Your task to perform on an android device: turn off wifi Image 0: 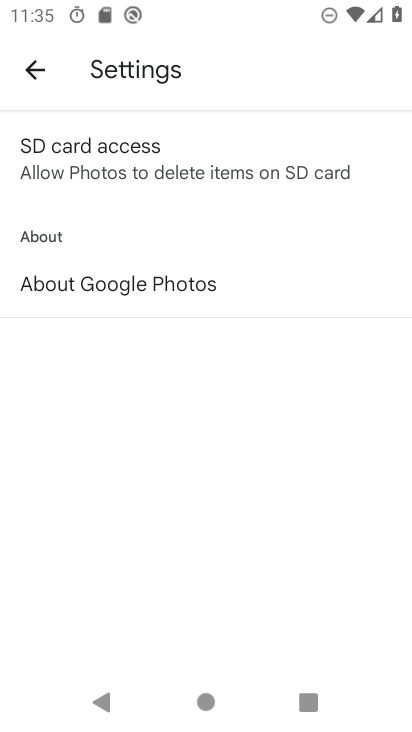
Step 0: press home button
Your task to perform on an android device: turn off wifi Image 1: 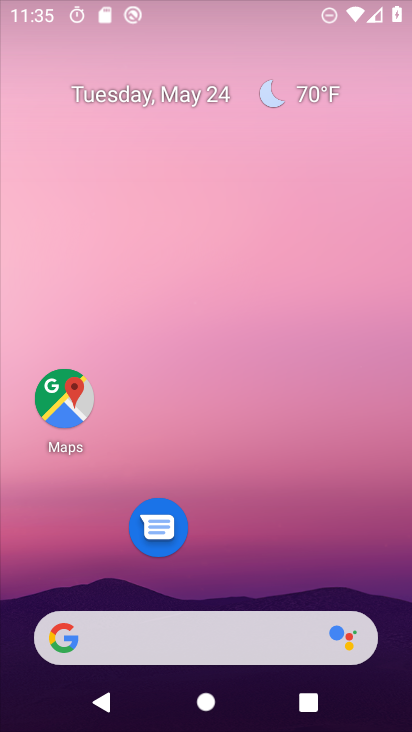
Step 1: drag from (288, 516) to (343, 93)
Your task to perform on an android device: turn off wifi Image 2: 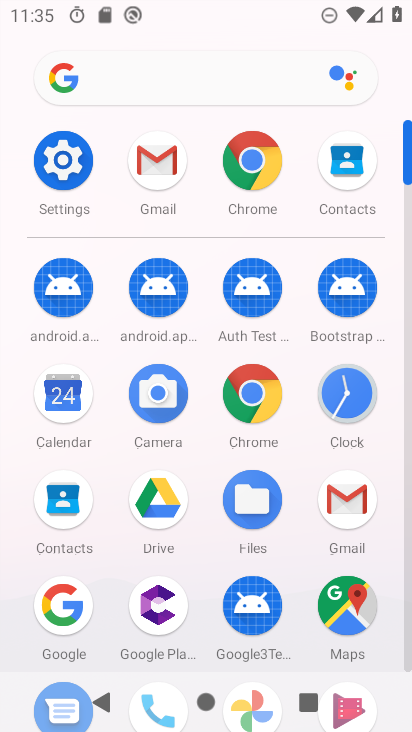
Step 2: click (66, 153)
Your task to perform on an android device: turn off wifi Image 3: 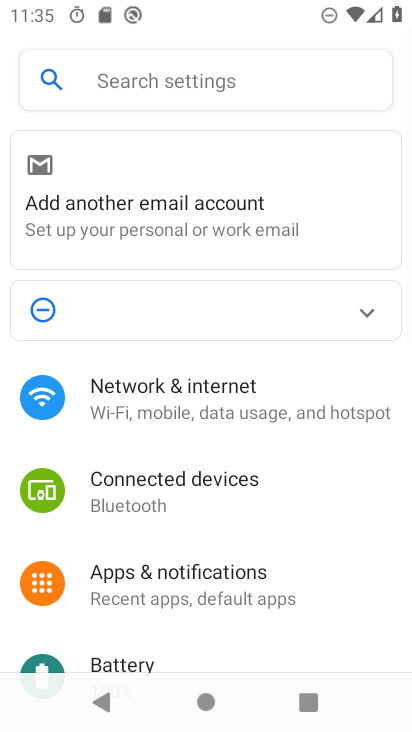
Step 3: click (194, 399)
Your task to perform on an android device: turn off wifi Image 4: 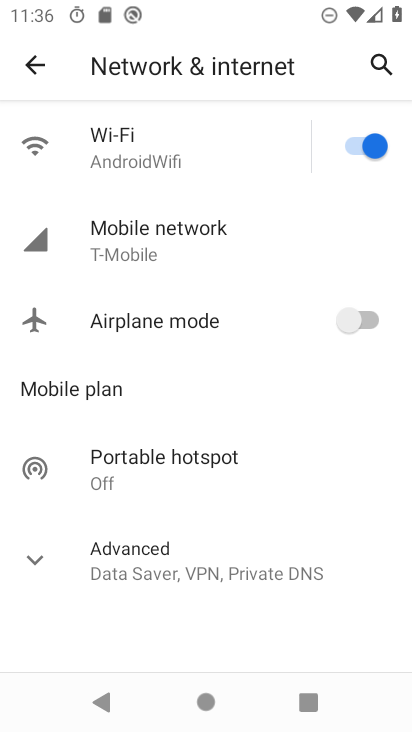
Step 4: click (369, 152)
Your task to perform on an android device: turn off wifi Image 5: 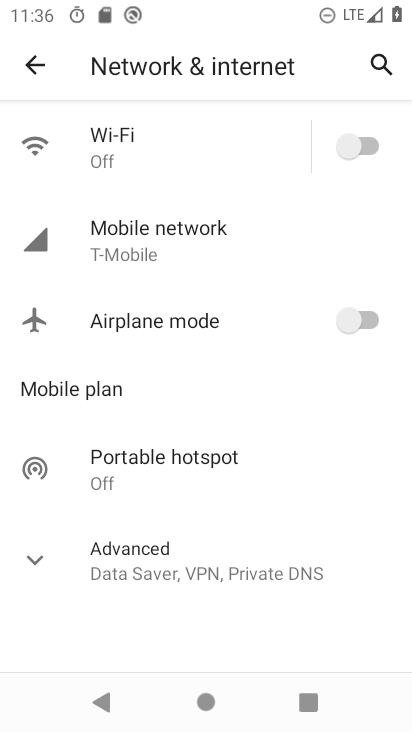
Step 5: task complete